Your task to perform on an android device: Open the map Image 0: 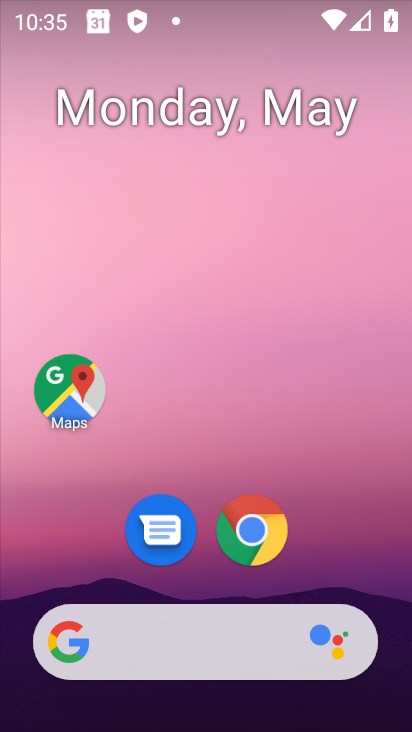
Step 0: click (65, 395)
Your task to perform on an android device: Open the map Image 1: 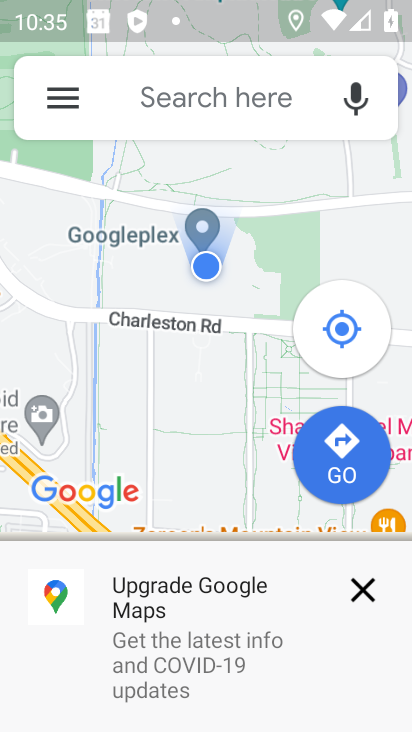
Step 1: click (353, 579)
Your task to perform on an android device: Open the map Image 2: 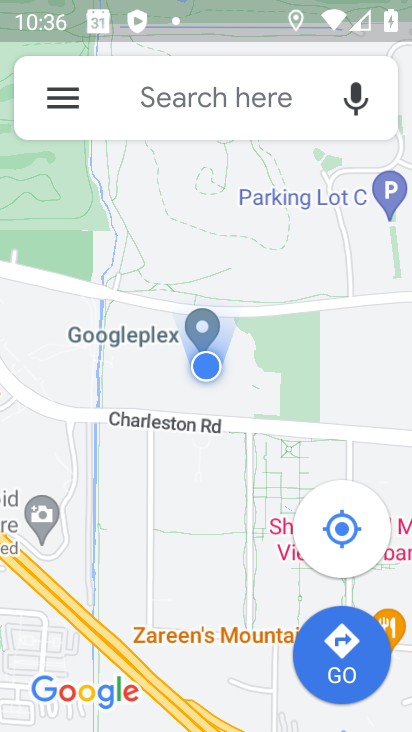
Step 2: task complete